Your task to perform on an android device: Open calendar and show me the fourth week of next month Image 0: 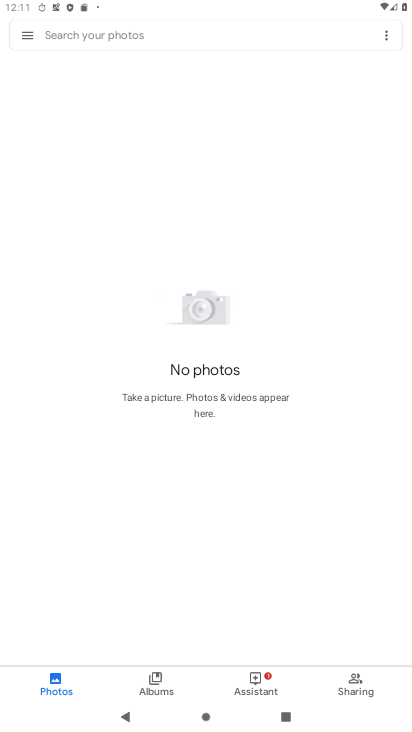
Step 0: press home button
Your task to perform on an android device: Open calendar and show me the fourth week of next month Image 1: 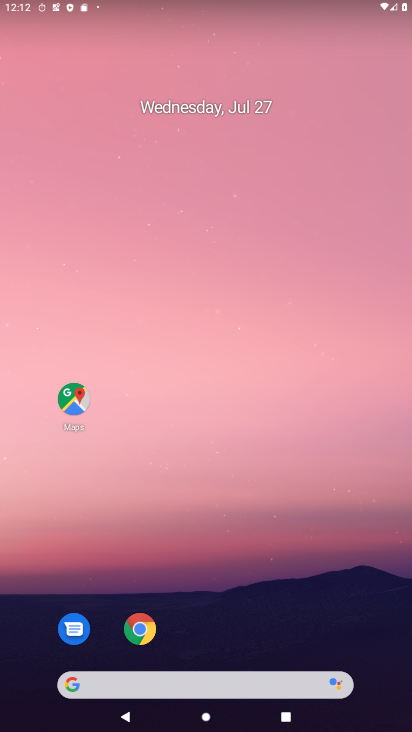
Step 1: drag from (380, 615) to (169, 6)
Your task to perform on an android device: Open calendar and show me the fourth week of next month Image 2: 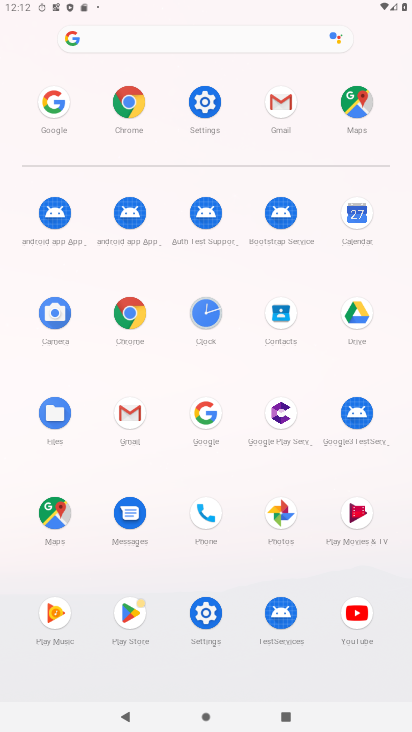
Step 2: click (356, 224)
Your task to perform on an android device: Open calendar and show me the fourth week of next month Image 3: 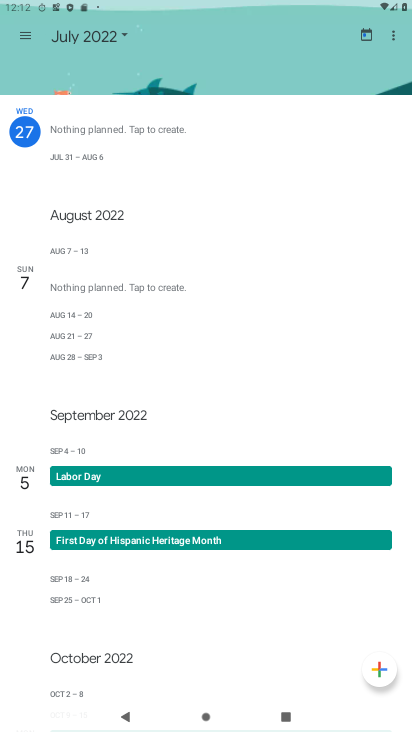
Step 3: click (88, 43)
Your task to perform on an android device: Open calendar and show me the fourth week of next month Image 4: 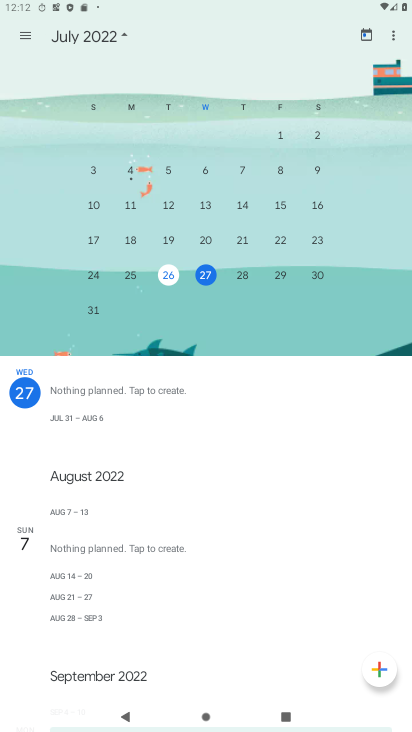
Step 4: drag from (332, 197) to (46, 246)
Your task to perform on an android device: Open calendar and show me the fourth week of next month Image 5: 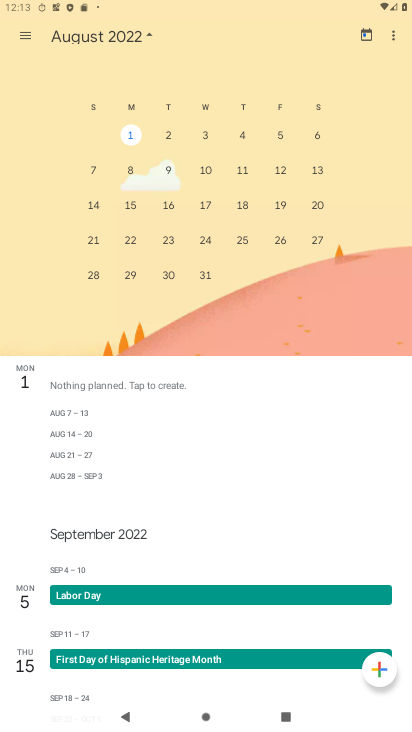
Step 5: click (87, 272)
Your task to perform on an android device: Open calendar and show me the fourth week of next month Image 6: 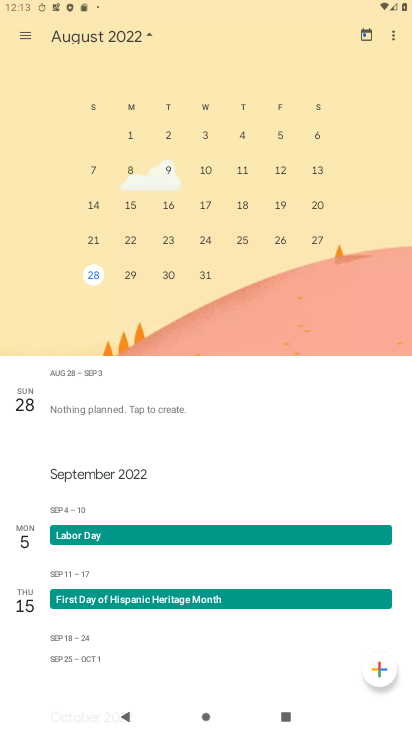
Step 6: task complete